Your task to perform on an android device: Open Google Chrome Image 0: 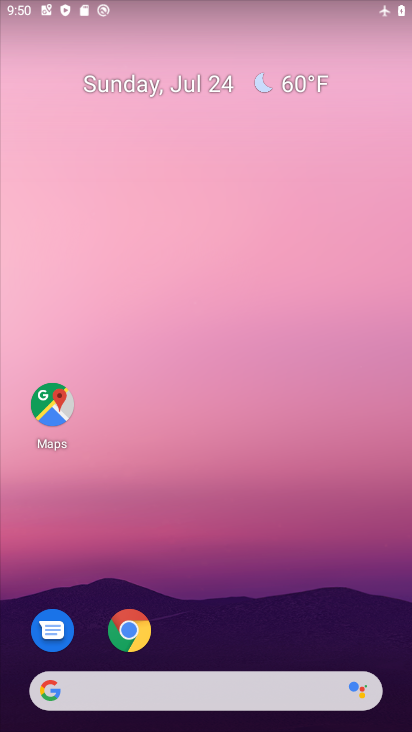
Step 0: click (133, 632)
Your task to perform on an android device: Open Google Chrome Image 1: 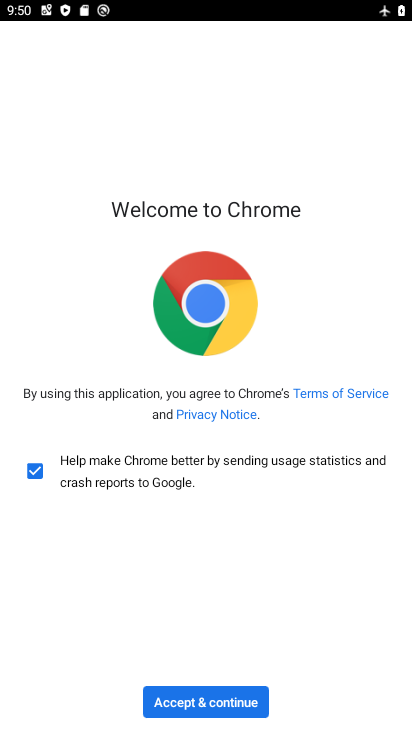
Step 1: click (229, 700)
Your task to perform on an android device: Open Google Chrome Image 2: 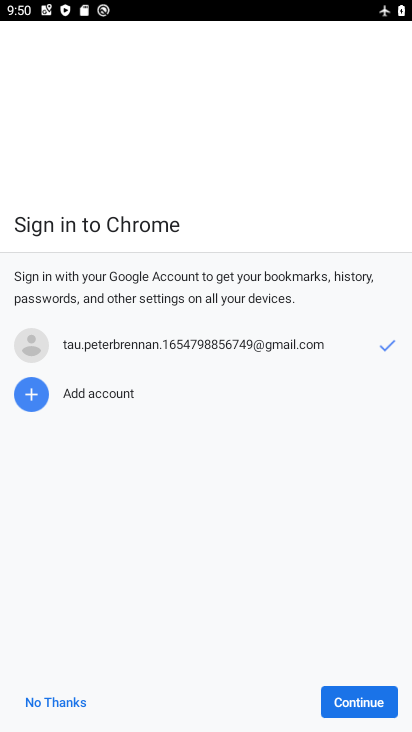
Step 2: click (354, 703)
Your task to perform on an android device: Open Google Chrome Image 3: 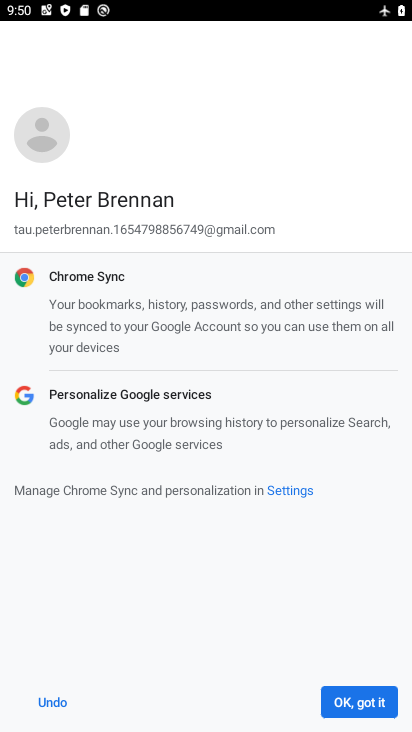
Step 3: click (356, 699)
Your task to perform on an android device: Open Google Chrome Image 4: 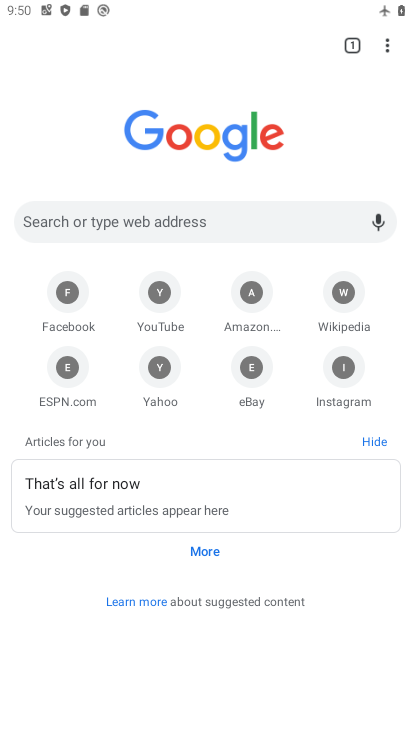
Step 4: task complete